Your task to perform on an android device: Open network settings Image 0: 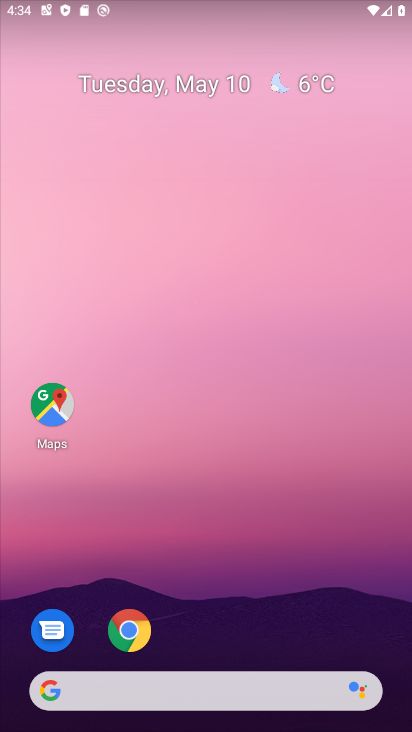
Step 0: drag from (268, 521) to (254, 136)
Your task to perform on an android device: Open network settings Image 1: 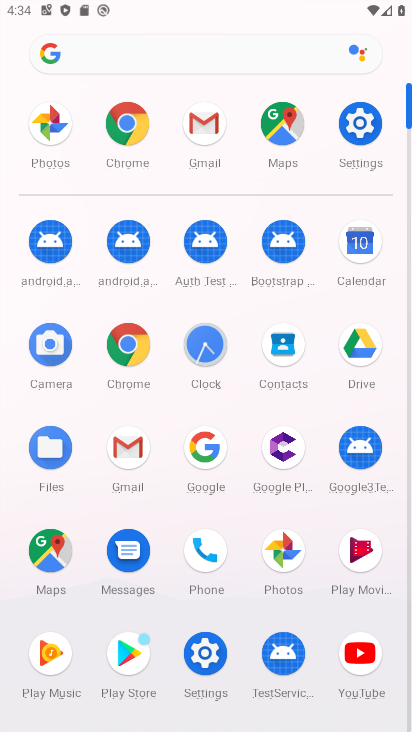
Step 1: click (356, 127)
Your task to perform on an android device: Open network settings Image 2: 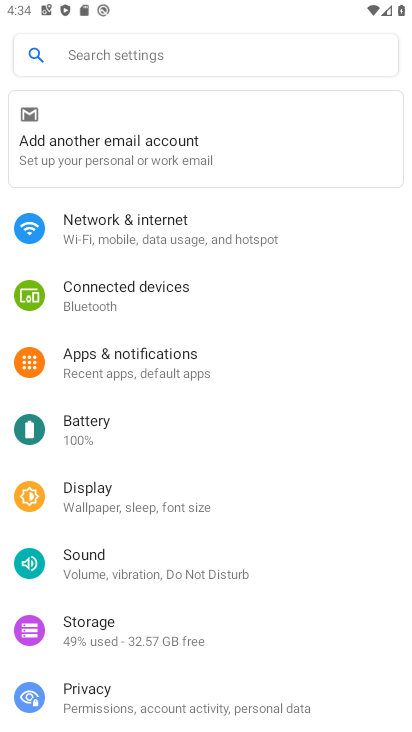
Step 2: click (195, 235)
Your task to perform on an android device: Open network settings Image 3: 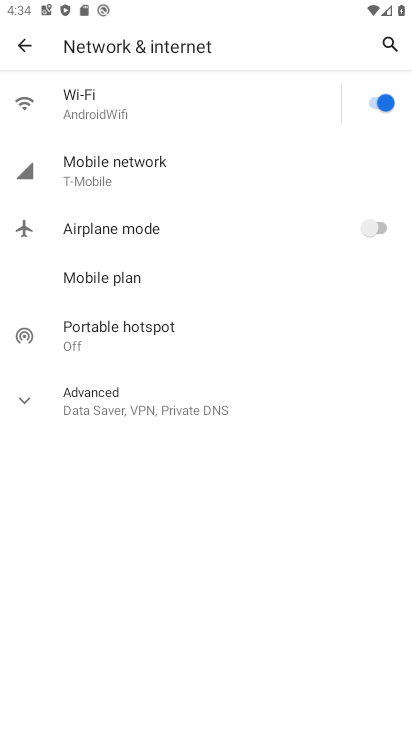
Step 3: task complete